Your task to perform on an android device: Go to Google maps Image 0: 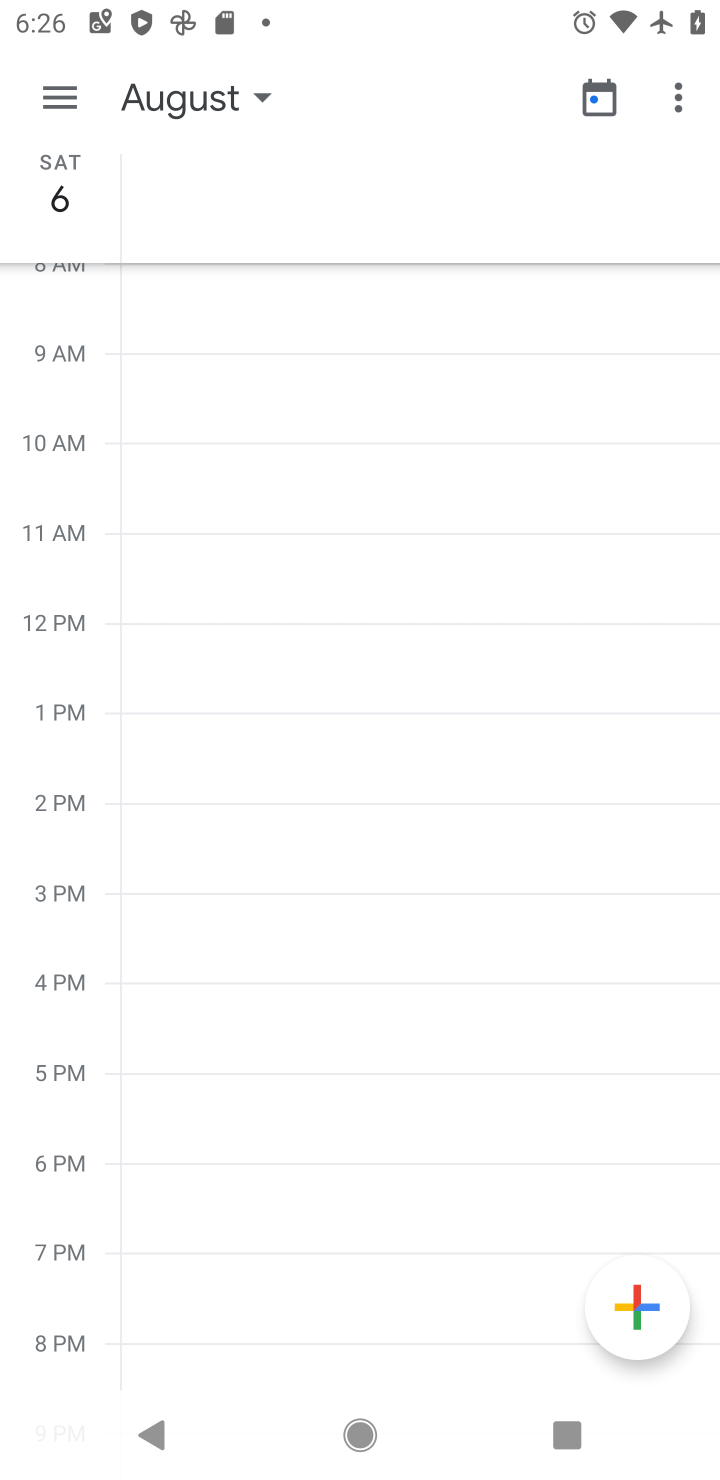
Step 0: press home button
Your task to perform on an android device: Go to Google maps Image 1: 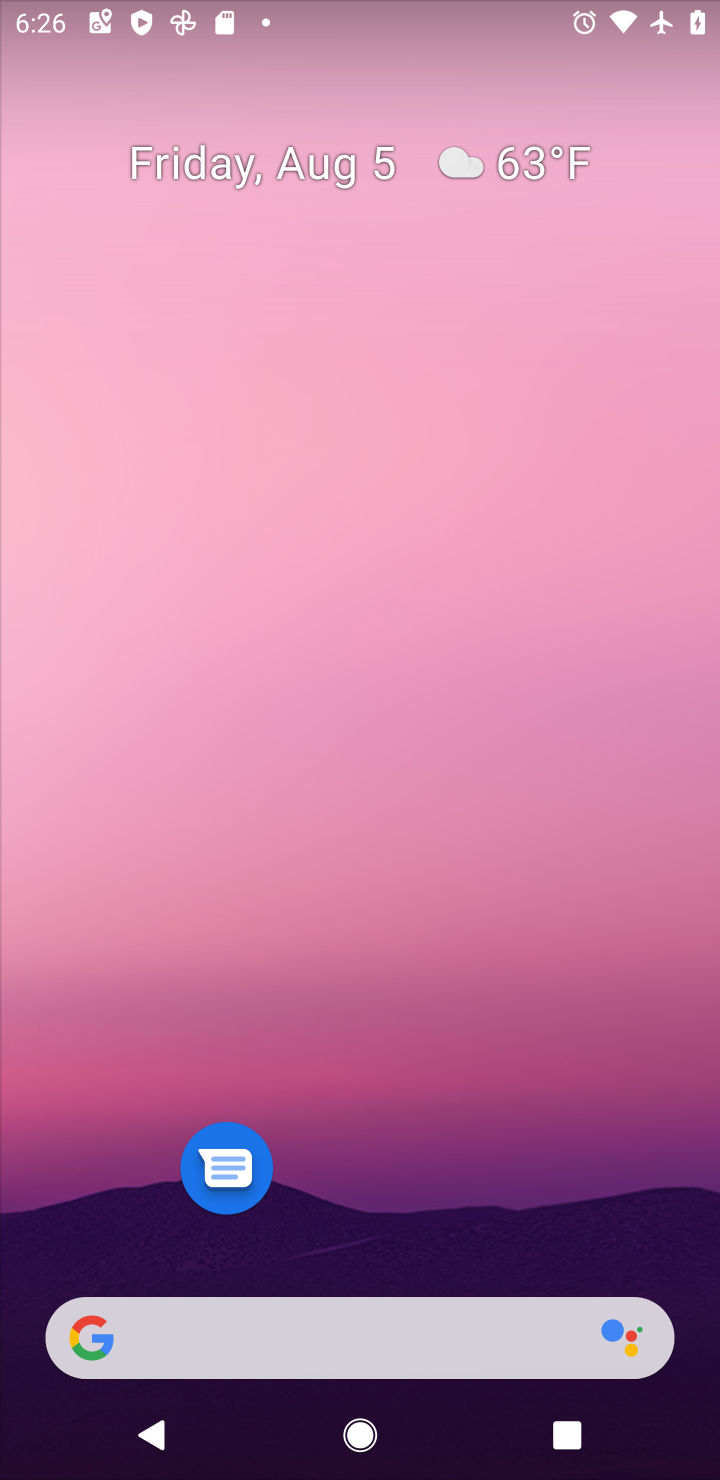
Step 1: drag from (383, 1261) to (475, 406)
Your task to perform on an android device: Go to Google maps Image 2: 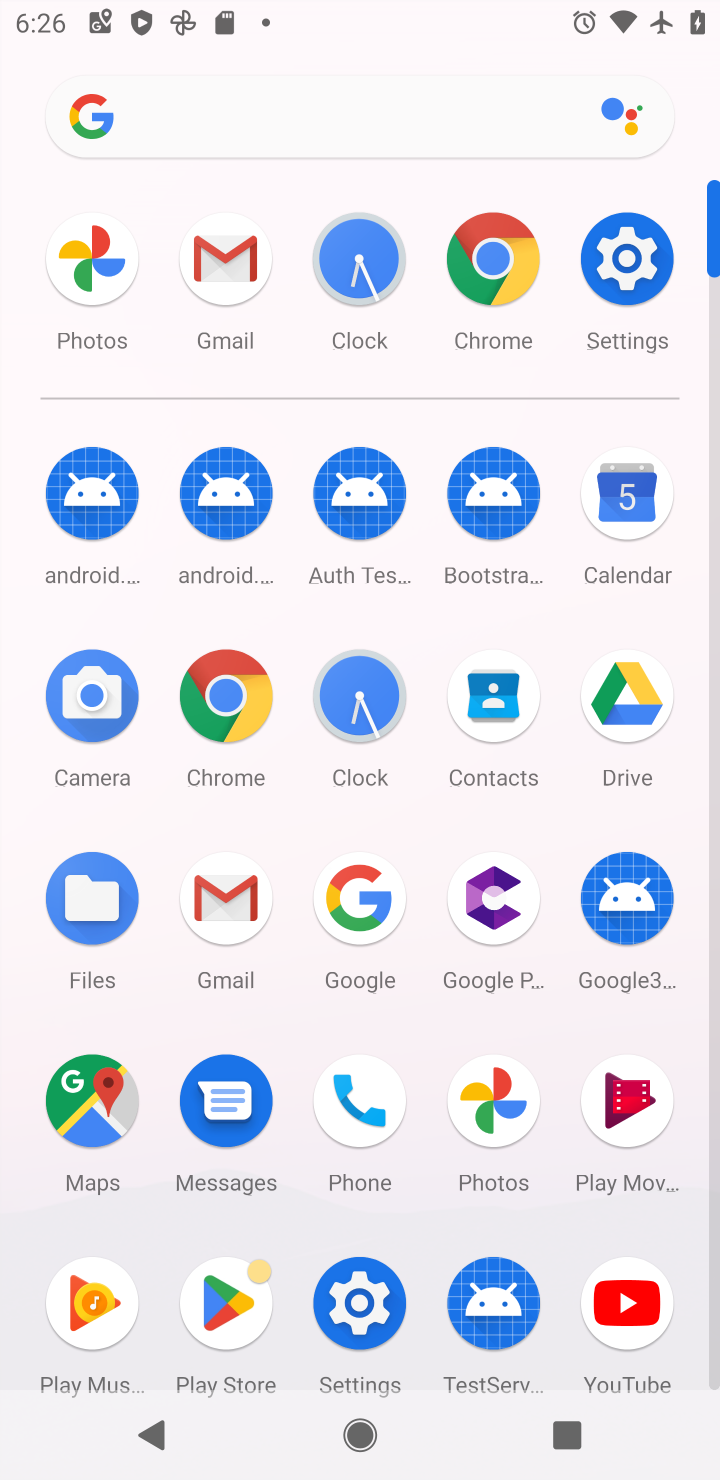
Step 2: click (87, 1096)
Your task to perform on an android device: Go to Google maps Image 3: 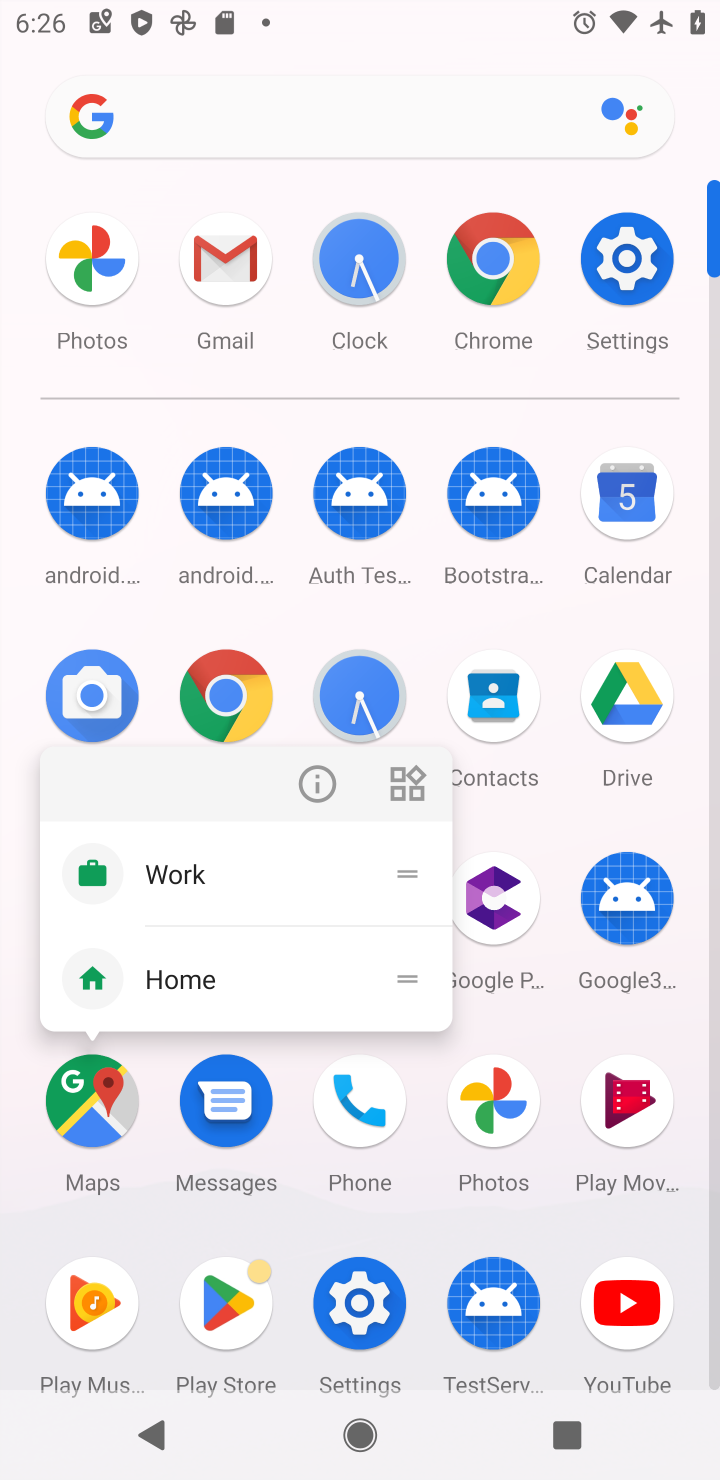
Step 3: click (86, 1094)
Your task to perform on an android device: Go to Google maps Image 4: 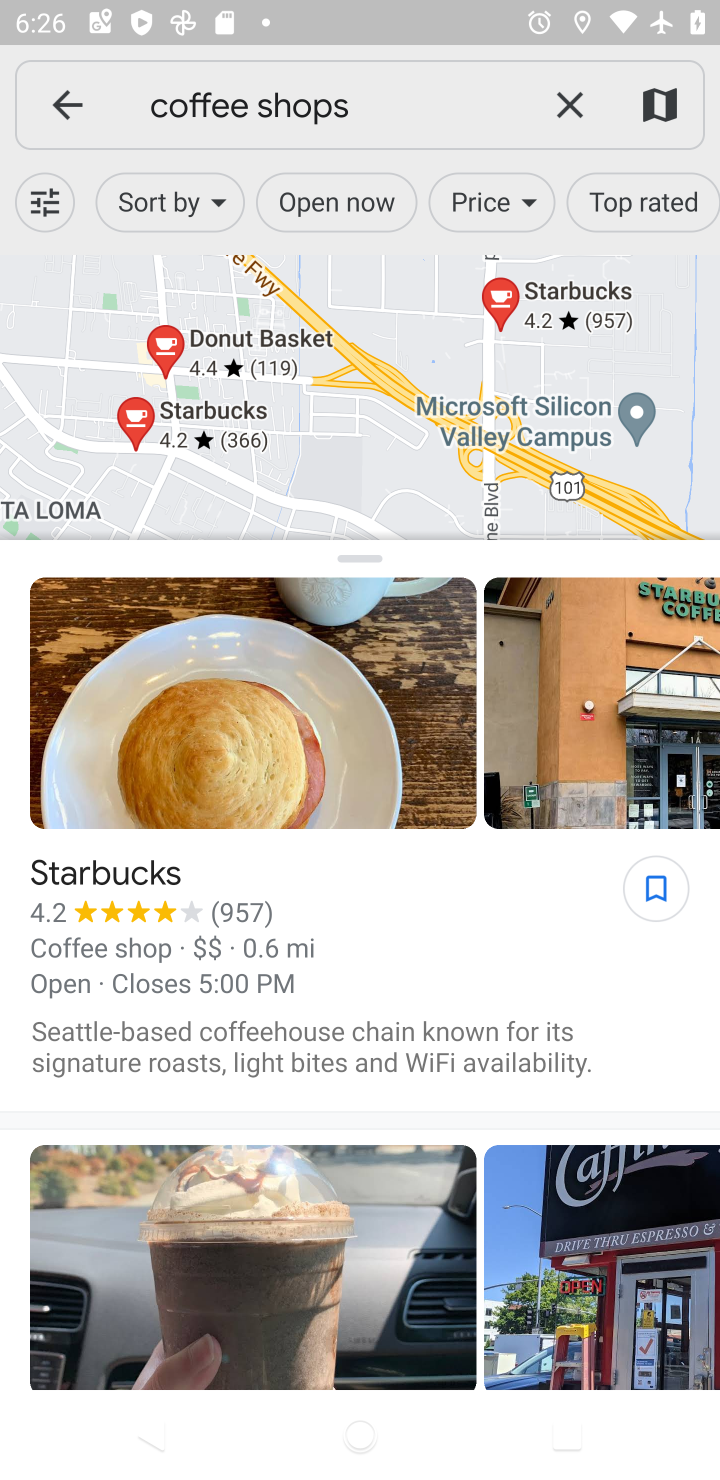
Step 4: click (57, 100)
Your task to perform on an android device: Go to Google maps Image 5: 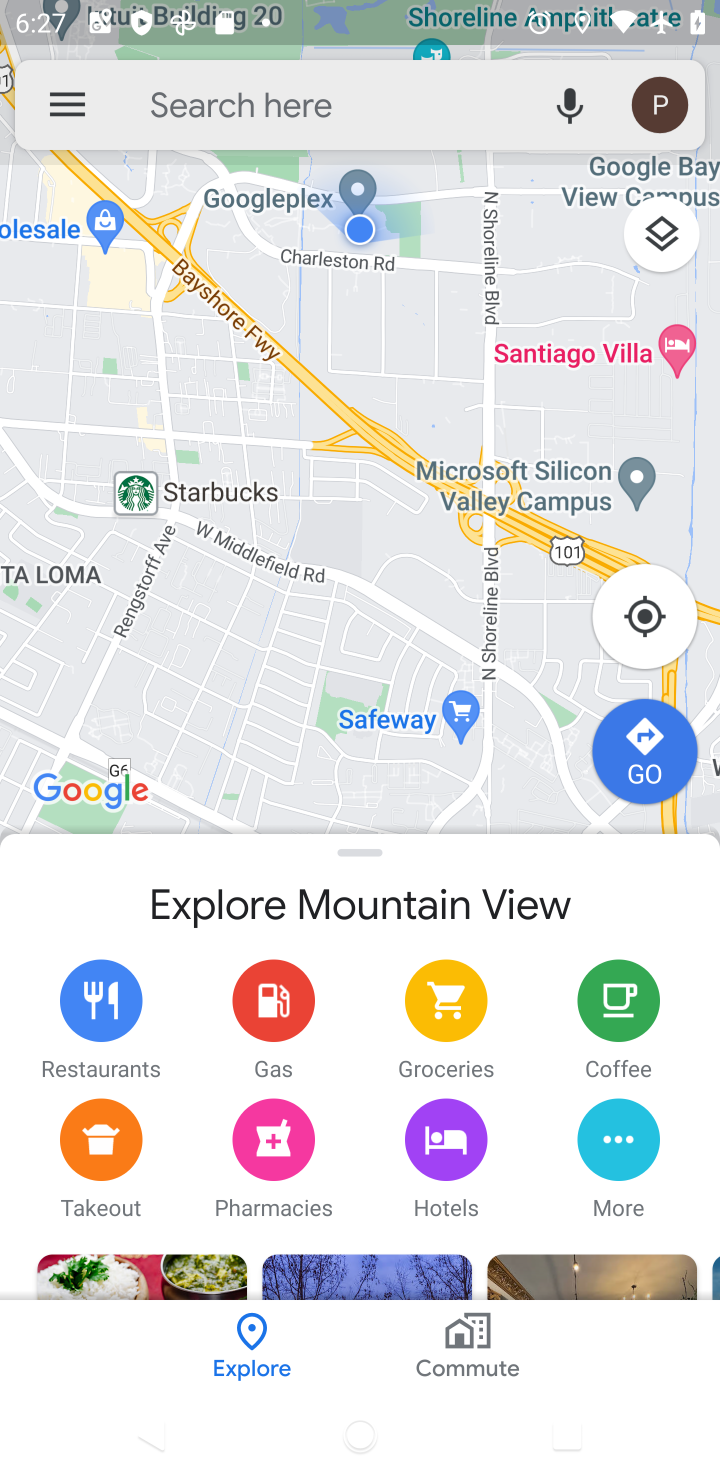
Step 5: task complete